Your task to perform on an android device: visit the assistant section in the google photos Image 0: 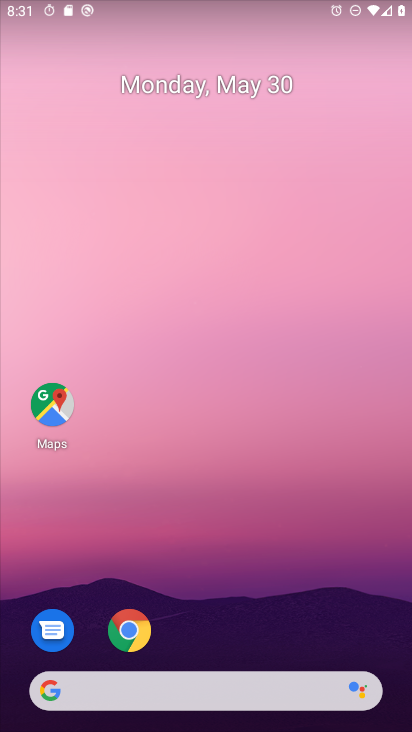
Step 0: drag from (314, 642) to (255, 79)
Your task to perform on an android device: visit the assistant section in the google photos Image 1: 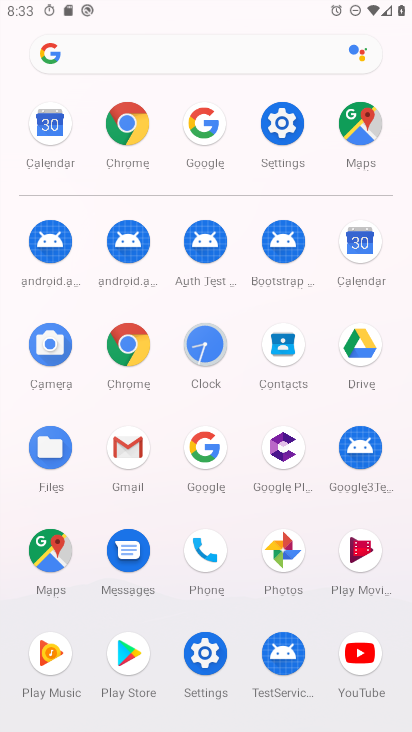
Step 1: click (286, 557)
Your task to perform on an android device: visit the assistant section in the google photos Image 2: 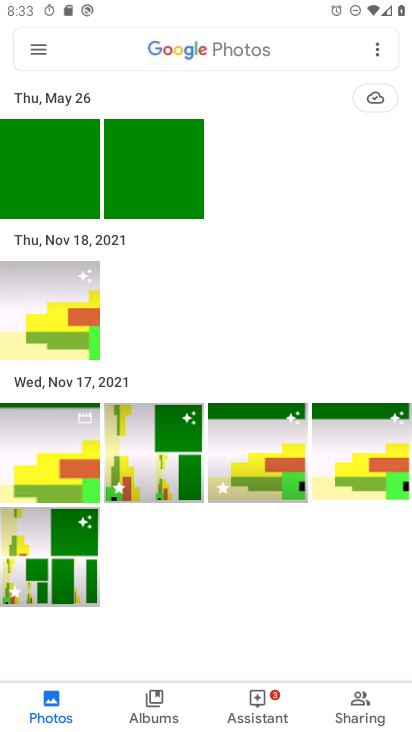
Step 2: click (256, 701)
Your task to perform on an android device: visit the assistant section in the google photos Image 3: 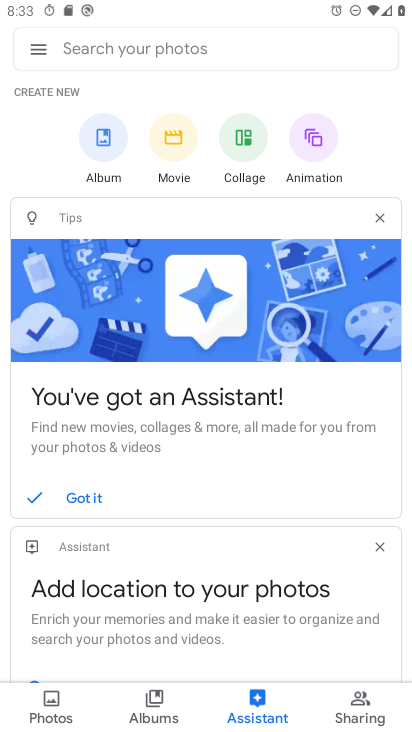
Step 3: task complete